Your task to perform on an android device: Open Yahoo.com Image 0: 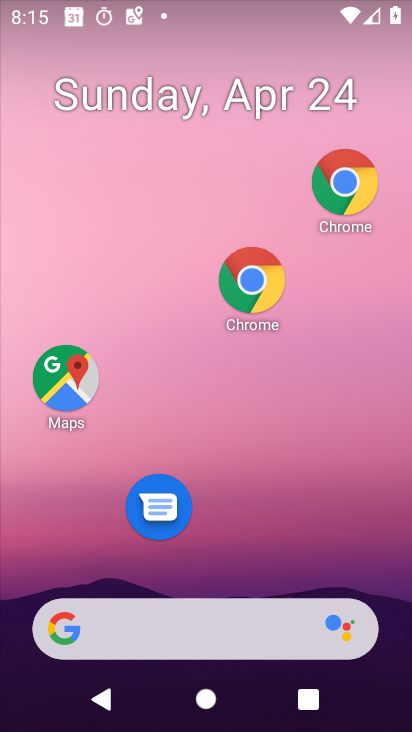
Step 0: drag from (220, 526) to (174, 183)
Your task to perform on an android device: Open Yahoo.com Image 1: 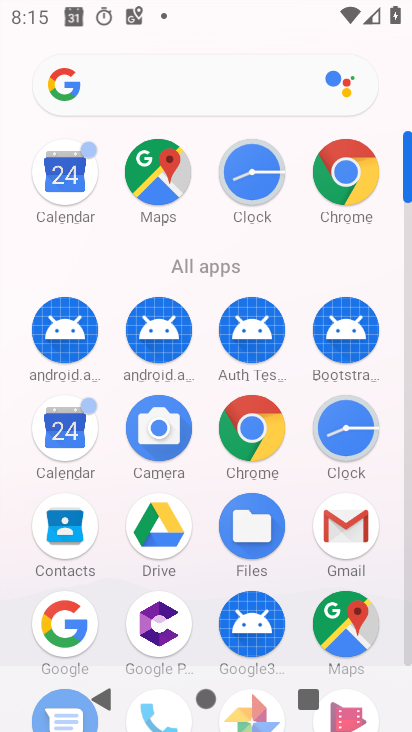
Step 1: click (347, 177)
Your task to perform on an android device: Open Yahoo.com Image 2: 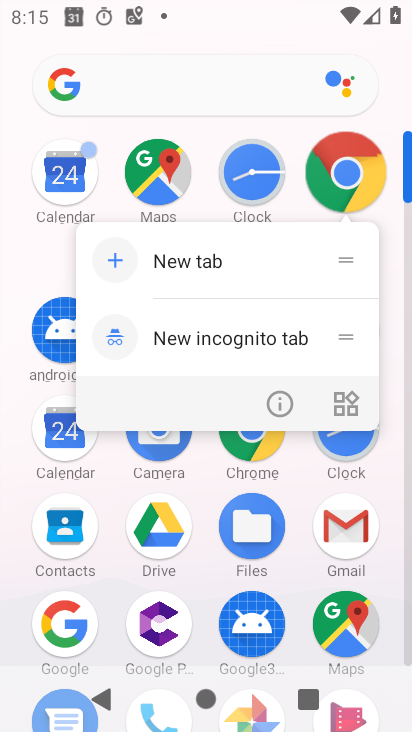
Step 2: click (349, 178)
Your task to perform on an android device: Open Yahoo.com Image 3: 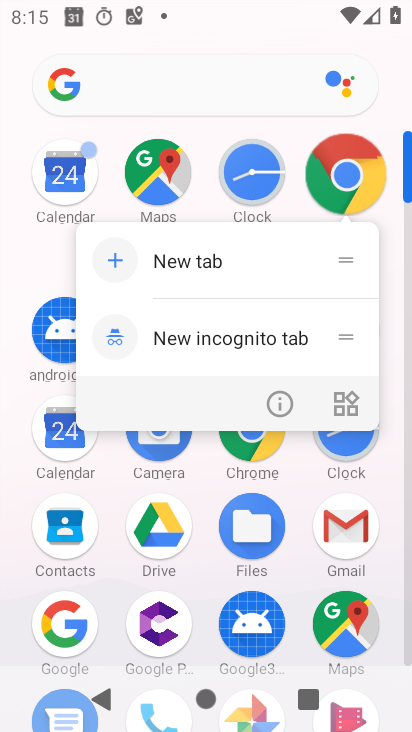
Step 3: click (349, 180)
Your task to perform on an android device: Open Yahoo.com Image 4: 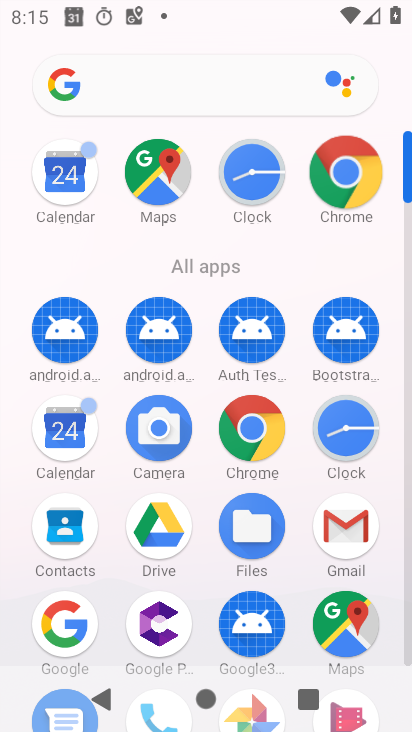
Step 4: click (349, 180)
Your task to perform on an android device: Open Yahoo.com Image 5: 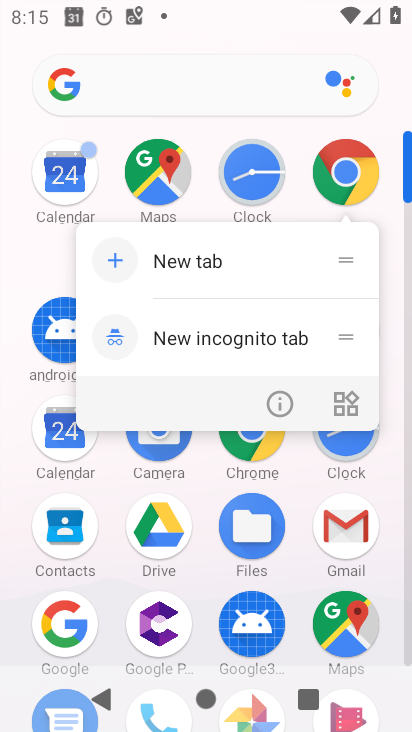
Step 5: click (346, 185)
Your task to perform on an android device: Open Yahoo.com Image 6: 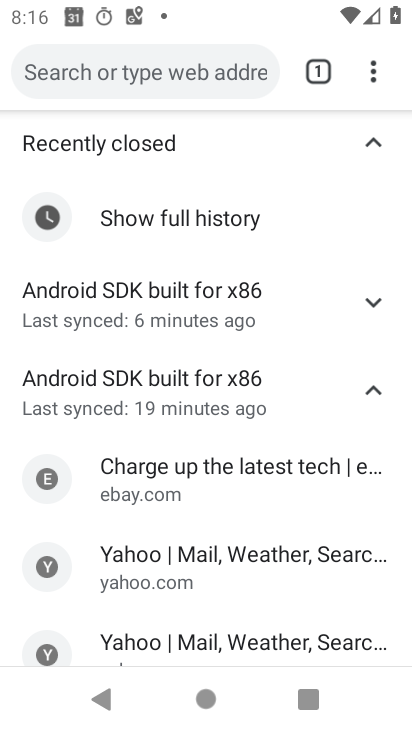
Step 6: drag from (369, 66) to (125, 141)
Your task to perform on an android device: Open Yahoo.com Image 7: 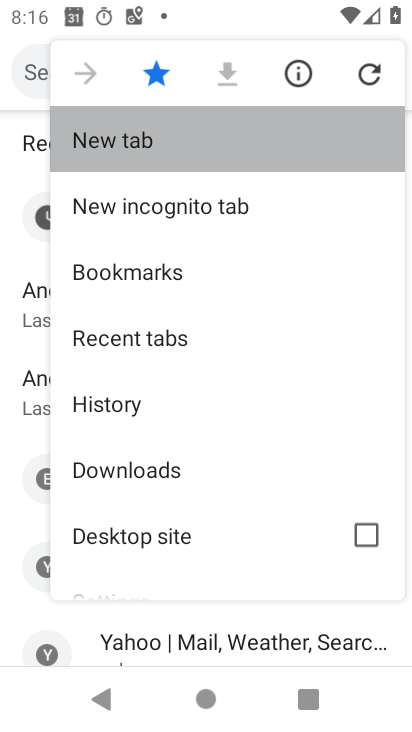
Step 7: click (125, 141)
Your task to perform on an android device: Open Yahoo.com Image 8: 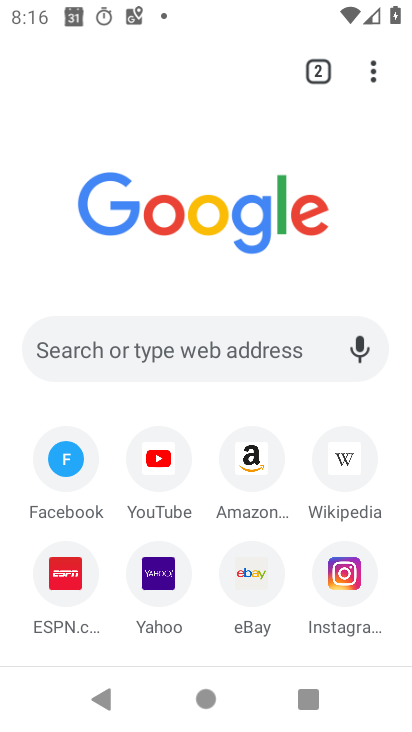
Step 8: click (151, 576)
Your task to perform on an android device: Open Yahoo.com Image 9: 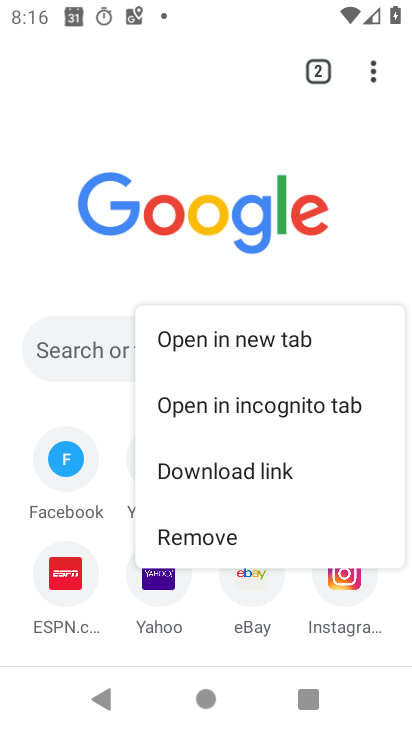
Step 9: click (244, 334)
Your task to perform on an android device: Open Yahoo.com Image 10: 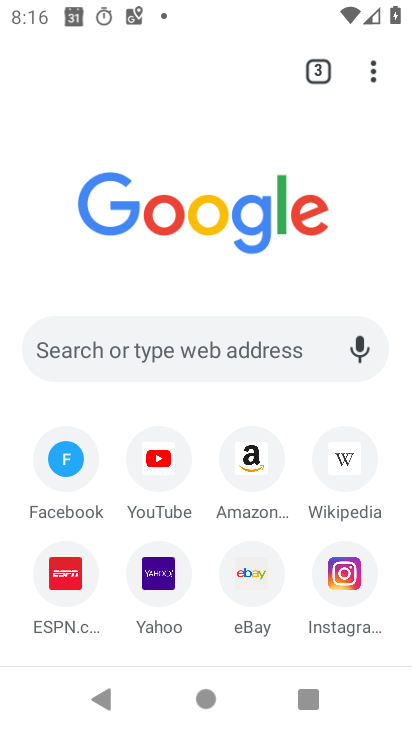
Step 10: click (161, 570)
Your task to perform on an android device: Open Yahoo.com Image 11: 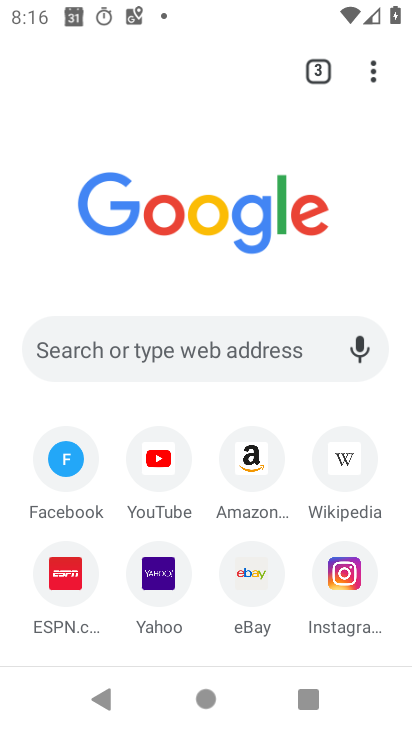
Step 11: click (159, 567)
Your task to perform on an android device: Open Yahoo.com Image 12: 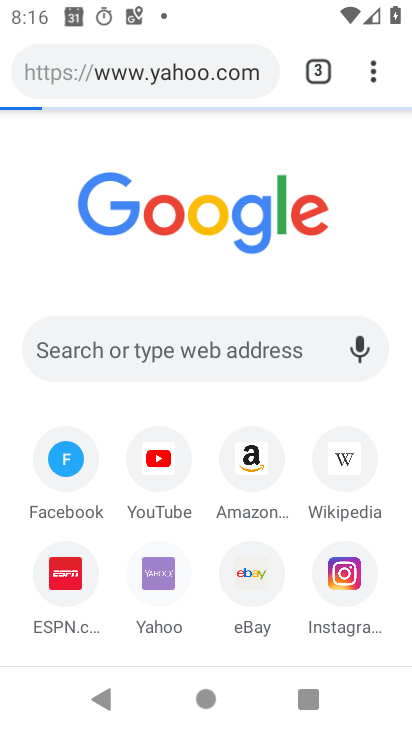
Step 12: click (154, 563)
Your task to perform on an android device: Open Yahoo.com Image 13: 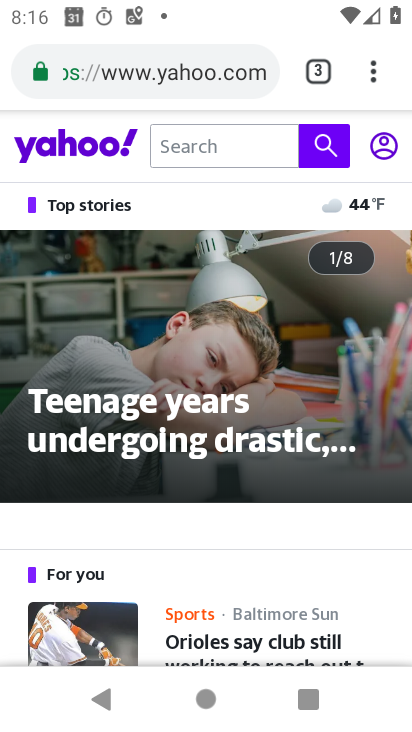
Step 13: task complete